Your task to perform on an android device: open app "Life360: Find Family & Friends" (install if not already installed) and enter user name: "gusts@gmail.com" and password: "assurers" Image 0: 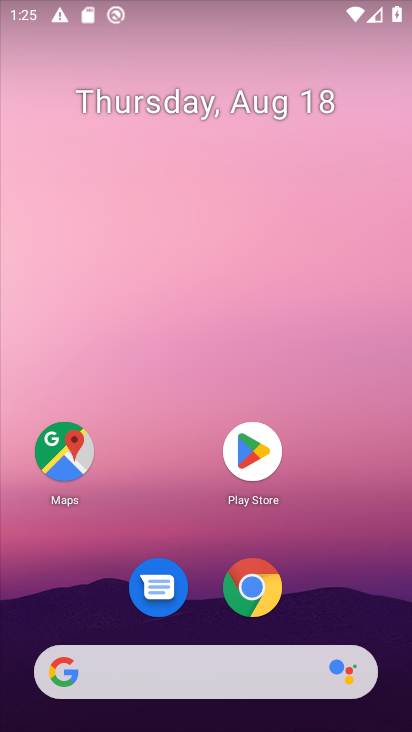
Step 0: press home button
Your task to perform on an android device: open app "Life360: Find Family & Friends" (install if not already installed) and enter user name: "gusts@gmail.com" and password: "assurers" Image 1: 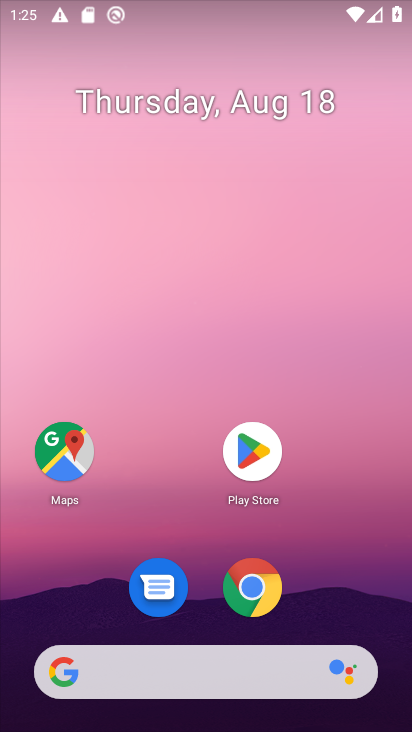
Step 1: click (256, 447)
Your task to perform on an android device: open app "Life360: Find Family & Friends" (install if not already installed) and enter user name: "gusts@gmail.com" and password: "assurers" Image 2: 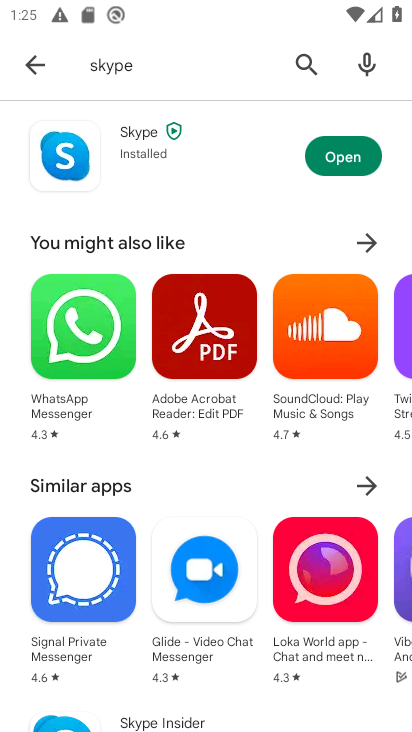
Step 2: click (303, 76)
Your task to perform on an android device: open app "Life360: Find Family & Friends" (install if not already installed) and enter user name: "gusts@gmail.com" and password: "assurers" Image 3: 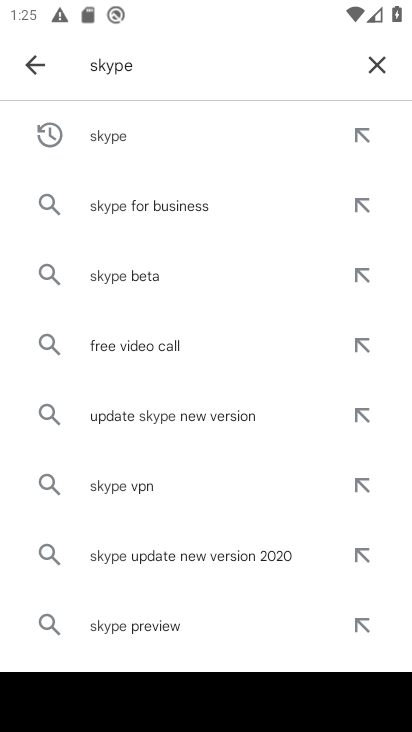
Step 3: click (377, 67)
Your task to perform on an android device: open app "Life360: Find Family & Friends" (install if not already installed) and enter user name: "gusts@gmail.com" and password: "assurers" Image 4: 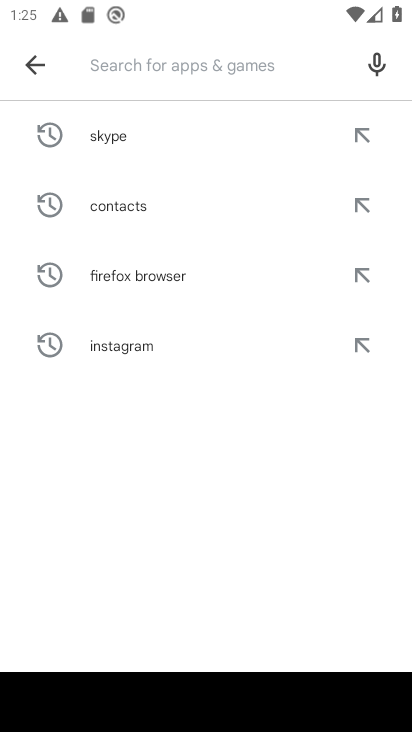
Step 4: type "Life360: Find Family & Friends"
Your task to perform on an android device: open app "Life360: Find Family & Friends" (install if not already installed) and enter user name: "gusts@gmail.com" and password: "assurers" Image 5: 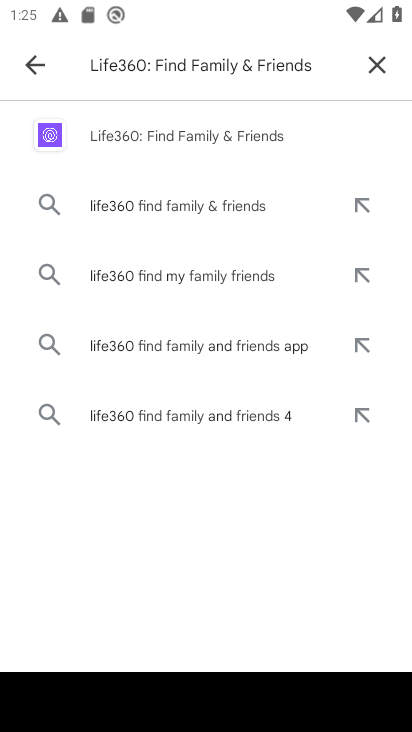
Step 5: click (199, 137)
Your task to perform on an android device: open app "Life360: Find Family & Friends" (install if not already installed) and enter user name: "gusts@gmail.com" and password: "assurers" Image 6: 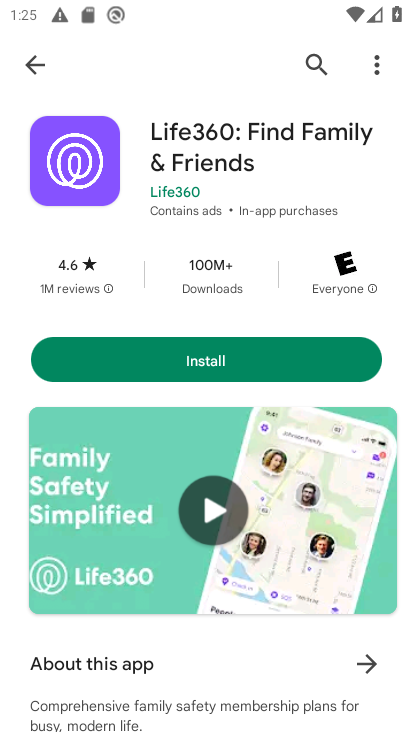
Step 6: click (228, 354)
Your task to perform on an android device: open app "Life360: Find Family & Friends" (install if not already installed) and enter user name: "gusts@gmail.com" and password: "assurers" Image 7: 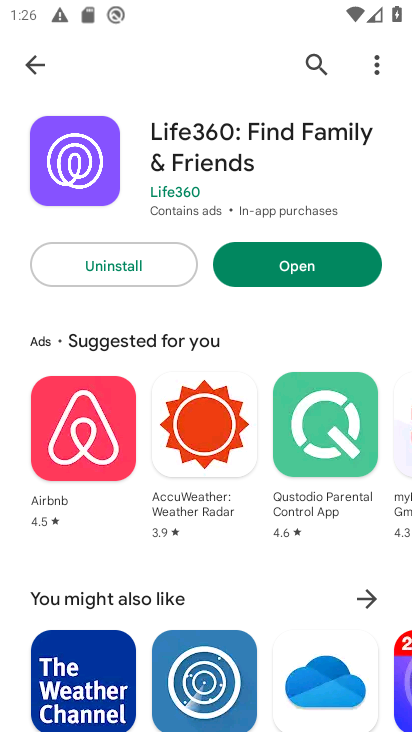
Step 7: click (284, 258)
Your task to perform on an android device: open app "Life360: Find Family & Friends" (install if not already installed) and enter user name: "gusts@gmail.com" and password: "assurers" Image 8: 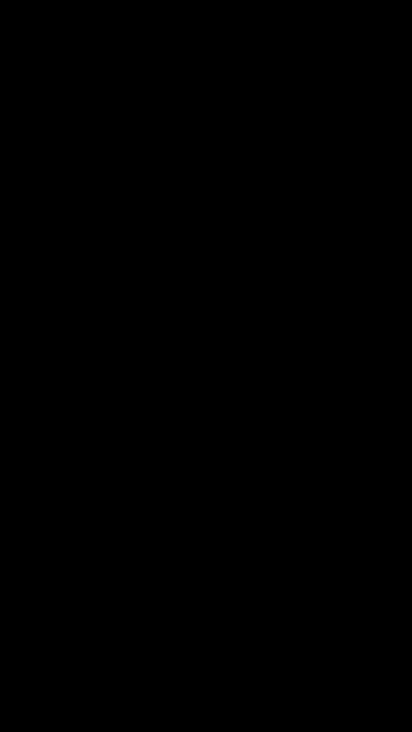
Step 8: press back button
Your task to perform on an android device: open app "Life360: Find Family & Friends" (install if not already installed) and enter user name: "gusts@gmail.com" and password: "assurers" Image 9: 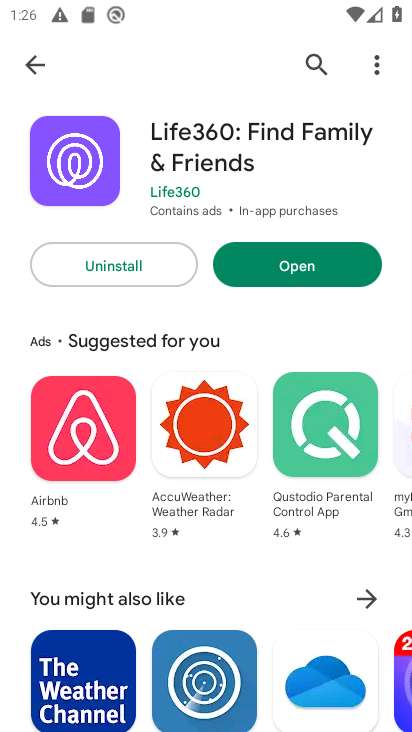
Step 9: click (283, 262)
Your task to perform on an android device: open app "Life360: Find Family & Friends" (install if not already installed) and enter user name: "gusts@gmail.com" and password: "assurers" Image 10: 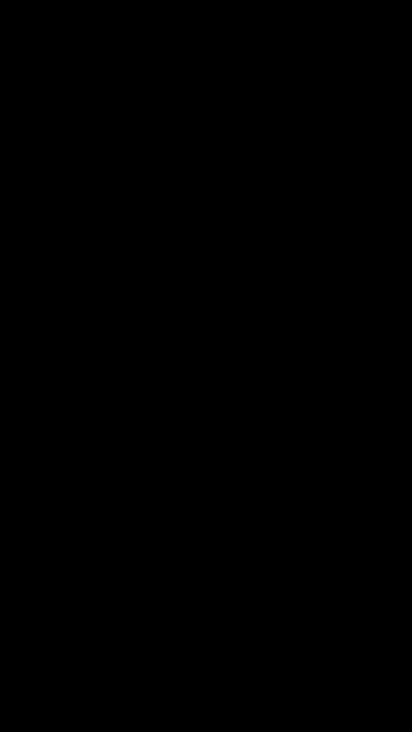
Step 10: task complete